Your task to perform on an android device: all mails in gmail Image 0: 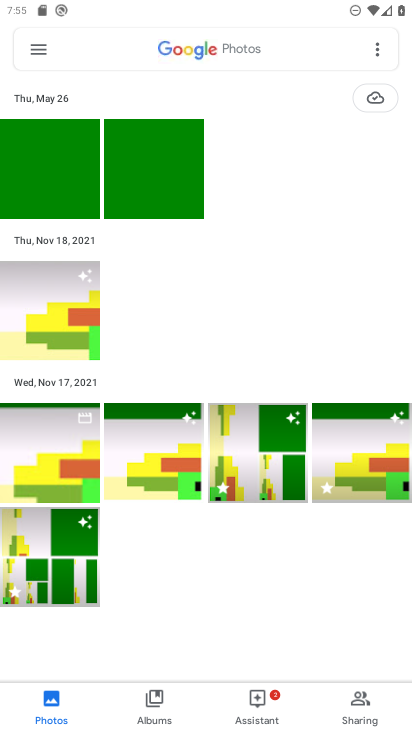
Step 0: press home button
Your task to perform on an android device: all mails in gmail Image 1: 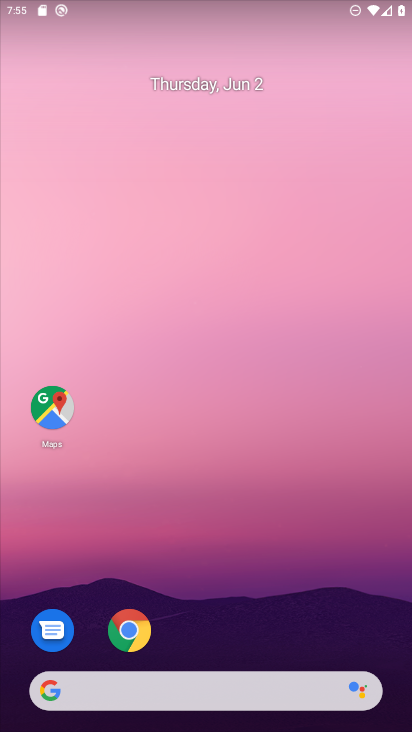
Step 1: drag from (146, 728) to (148, 121)
Your task to perform on an android device: all mails in gmail Image 2: 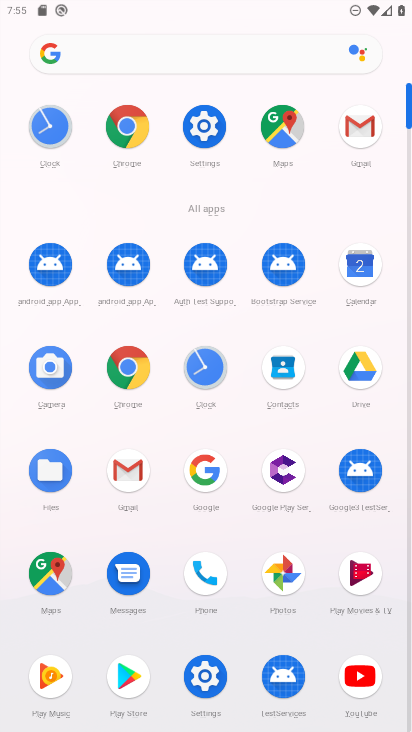
Step 2: click (359, 135)
Your task to perform on an android device: all mails in gmail Image 3: 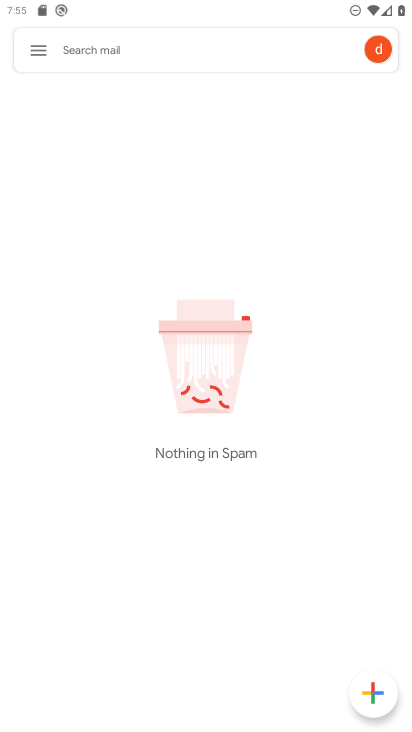
Step 3: click (46, 47)
Your task to perform on an android device: all mails in gmail Image 4: 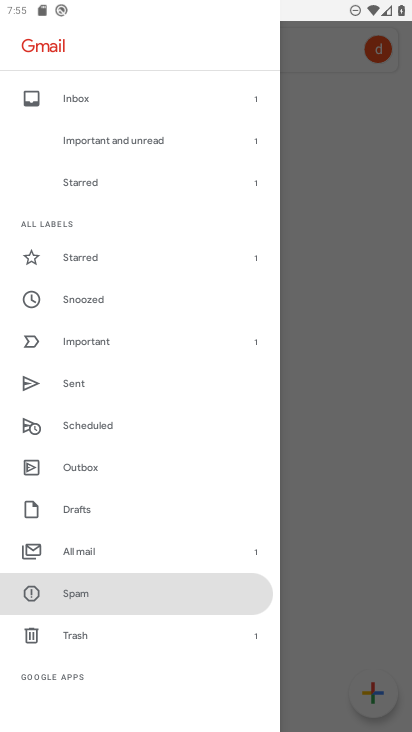
Step 4: click (91, 557)
Your task to perform on an android device: all mails in gmail Image 5: 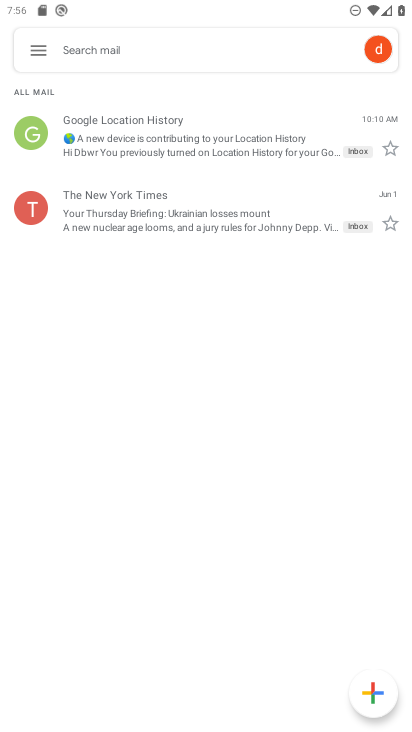
Step 5: task complete